Your task to perform on an android device: turn on location history Image 0: 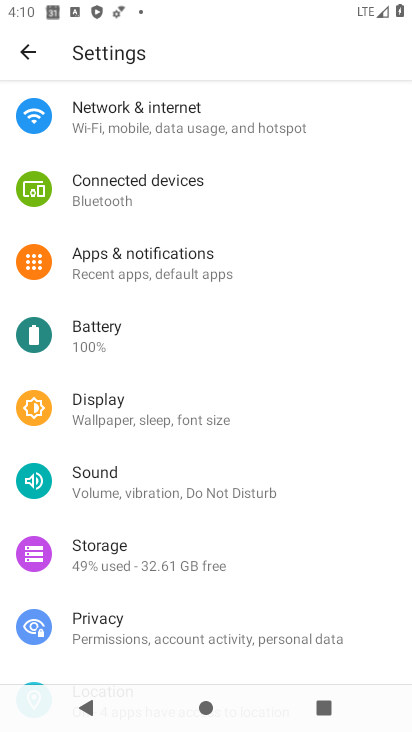
Step 0: drag from (156, 554) to (159, 156)
Your task to perform on an android device: turn on location history Image 1: 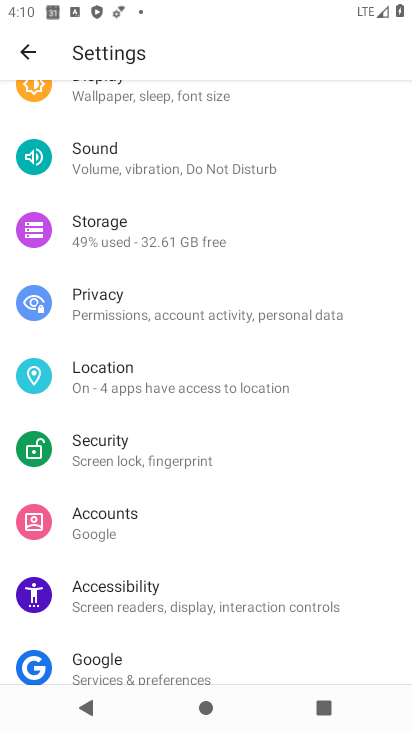
Step 1: click (129, 375)
Your task to perform on an android device: turn on location history Image 2: 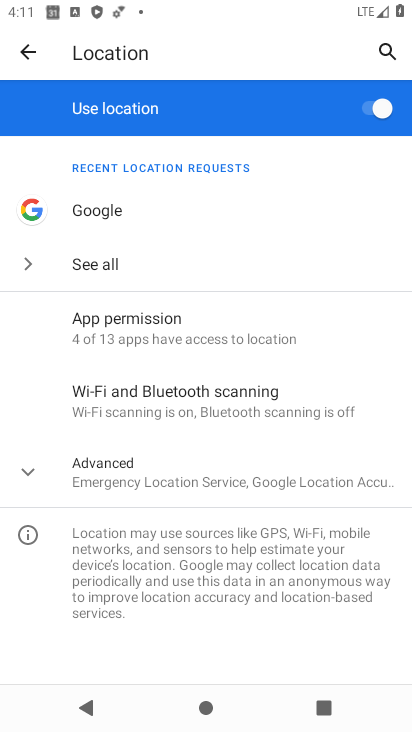
Step 2: press home button
Your task to perform on an android device: turn on location history Image 3: 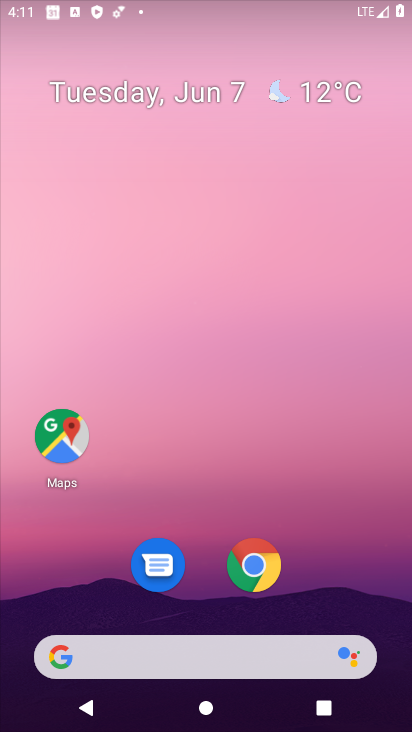
Step 3: drag from (228, 563) to (247, 87)
Your task to perform on an android device: turn on location history Image 4: 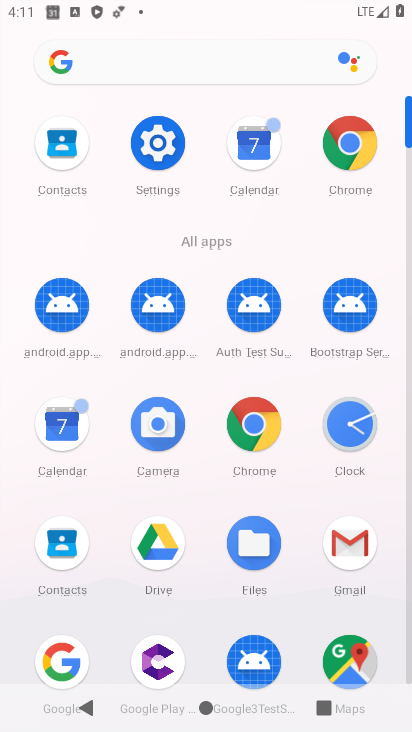
Step 4: click (158, 145)
Your task to perform on an android device: turn on location history Image 5: 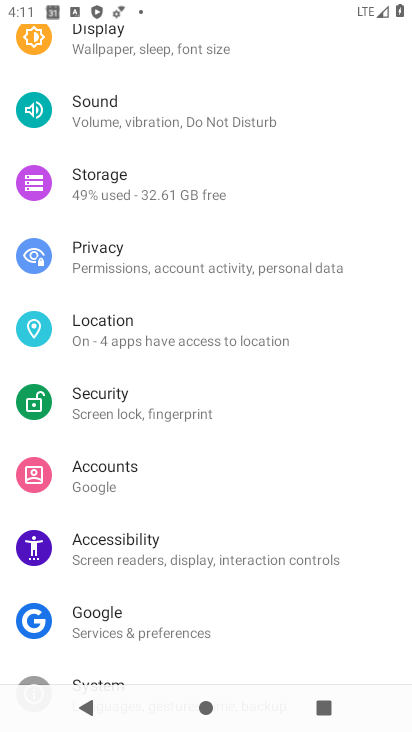
Step 5: click (138, 342)
Your task to perform on an android device: turn on location history Image 6: 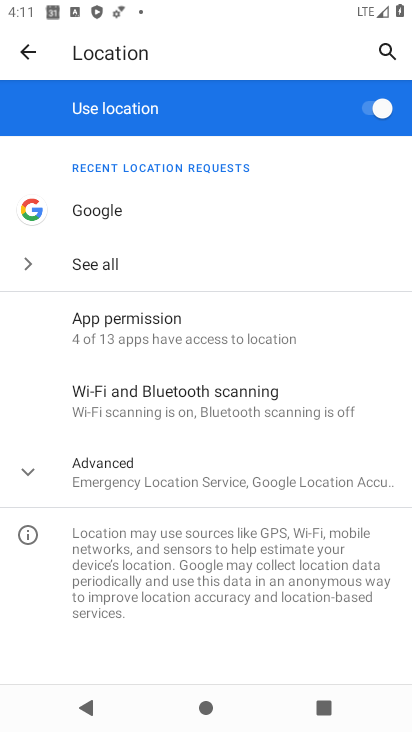
Step 6: click (158, 457)
Your task to perform on an android device: turn on location history Image 7: 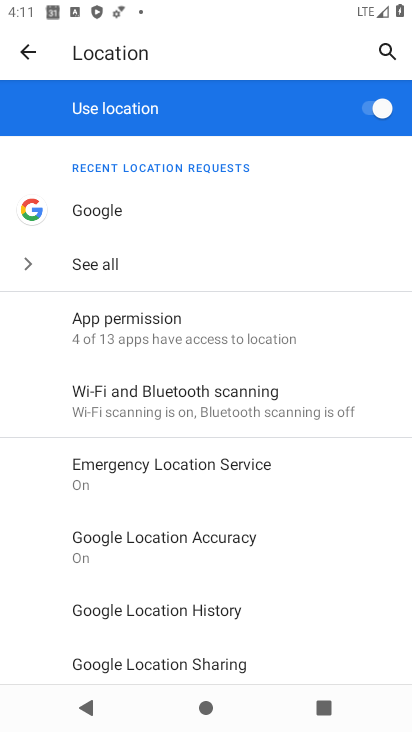
Step 7: click (191, 611)
Your task to perform on an android device: turn on location history Image 8: 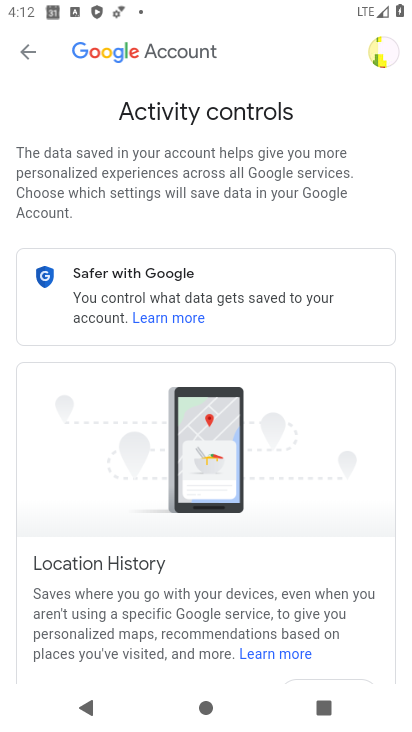
Step 8: task complete